Your task to perform on an android device: What's the weather? Image 0: 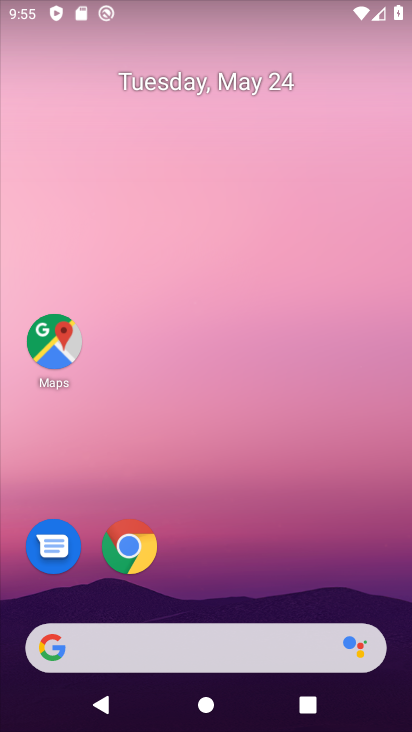
Step 0: drag from (283, 547) to (277, 509)
Your task to perform on an android device: What's the weather? Image 1: 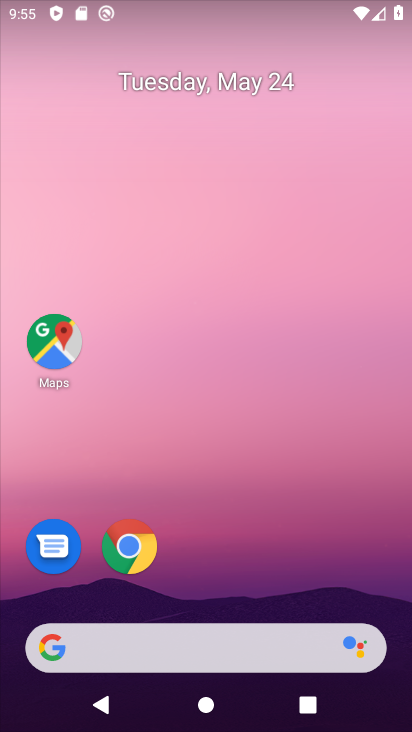
Step 1: click (130, 547)
Your task to perform on an android device: What's the weather? Image 2: 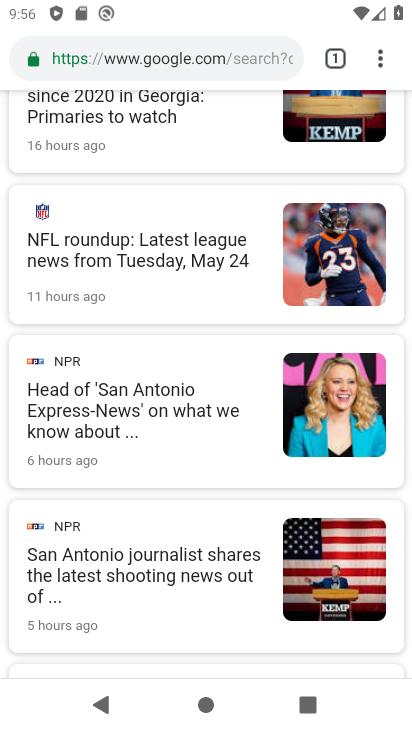
Step 2: drag from (148, 157) to (218, 614)
Your task to perform on an android device: What's the weather? Image 3: 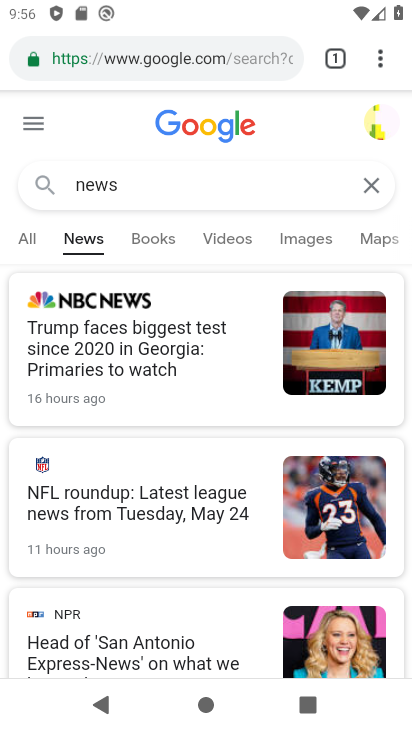
Step 3: click (158, 194)
Your task to perform on an android device: What's the weather? Image 4: 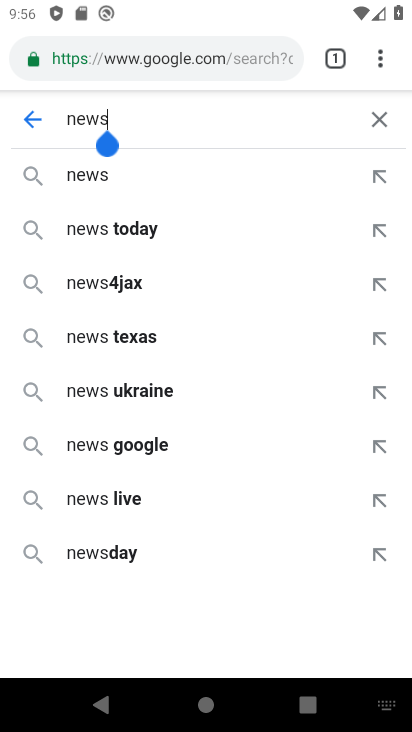
Step 4: click (383, 116)
Your task to perform on an android device: What's the weather? Image 5: 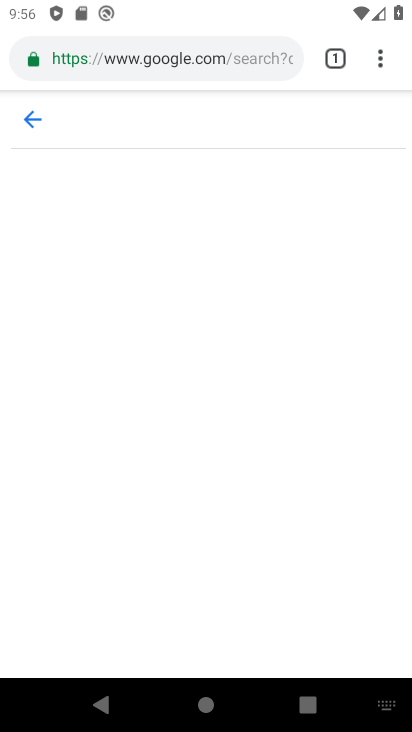
Step 5: type "weather"
Your task to perform on an android device: What's the weather? Image 6: 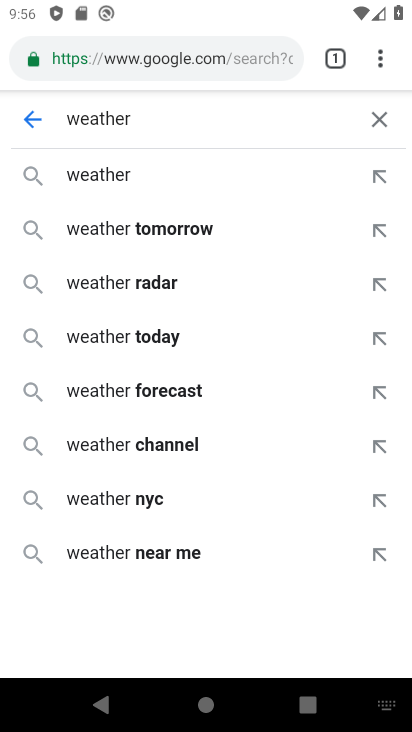
Step 6: click (79, 174)
Your task to perform on an android device: What's the weather? Image 7: 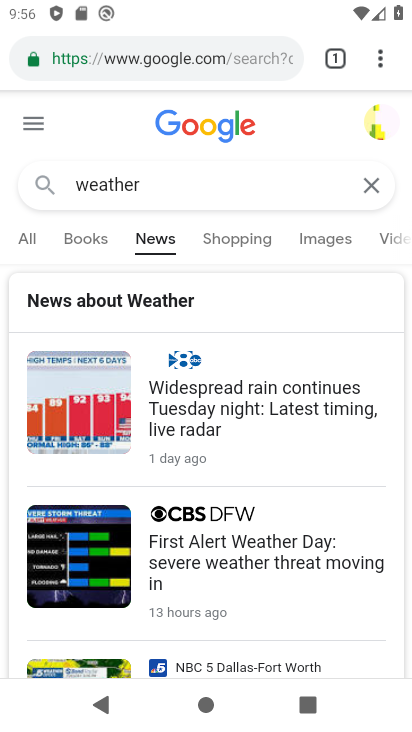
Step 7: click (24, 240)
Your task to perform on an android device: What's the weather? Image 8: 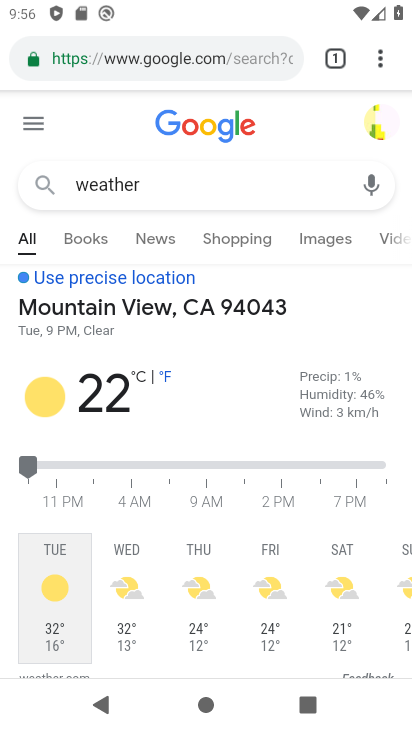
Step 8: task complete